Your task to perform on an android device: Go to Amazon Image 0: 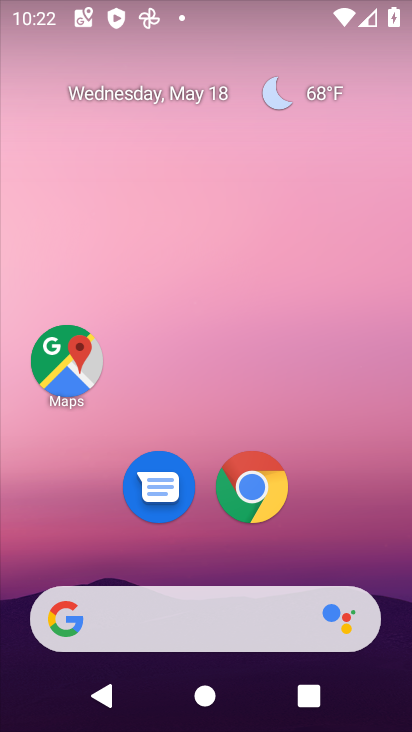
Step 0: drag from (327, 560) to (336, 259)
Your task to perform on an android device: Go to Amazon Image 1: 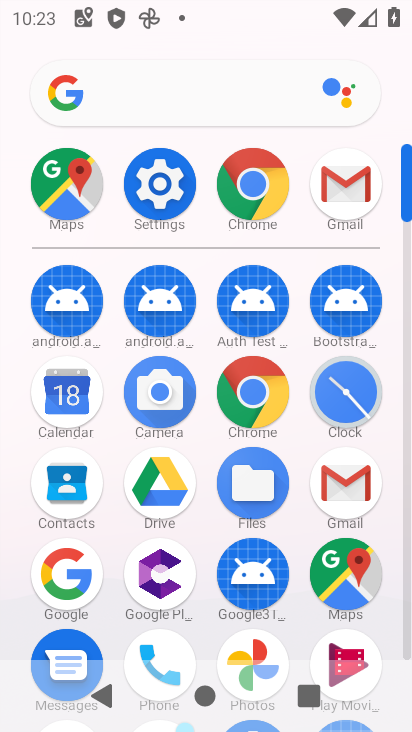
Step 1: drag from (304, 632) to (277, 356)
Your task to perform on an android device: Go to Amazon Image 2: 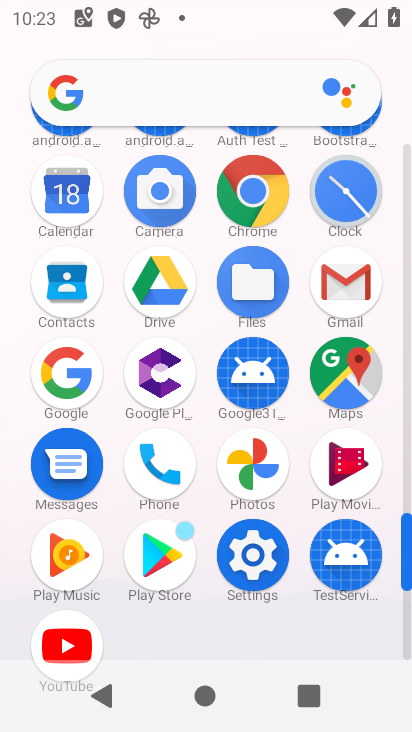
Step 2: drag from (298, 237) to (273, 553)
Your task to perform on an android device: Go to Amazon Image 3: 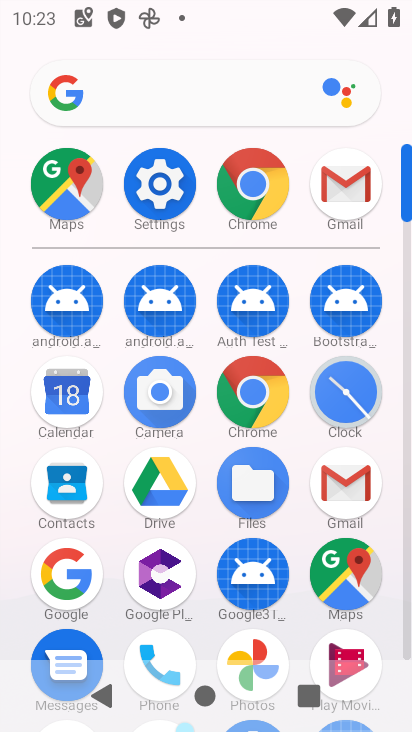
Step 3: click (253, 382)
Your task to perform on an android device: Go to Amazon Image 4: 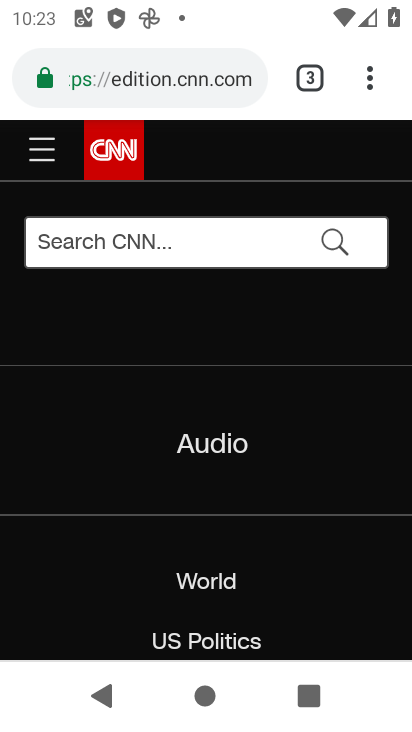
Step 4: click (172, 82)
Your task to perform on an android device: Go to Amazon Image 5: 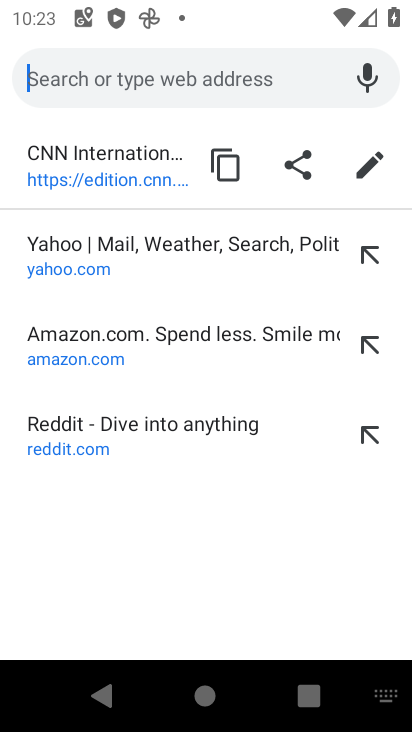
Step 5: click (127, 326)
Your task to perform on an android device: Go to Amazon Image 6: 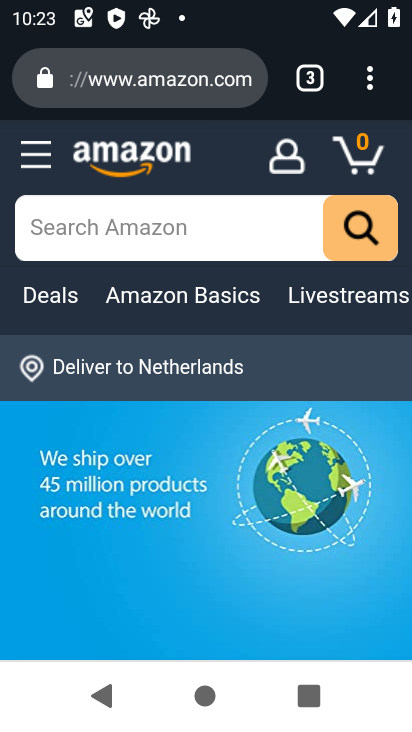
Step 6: task complete